Your task to perform on an android device: Open notification settings Image 0: 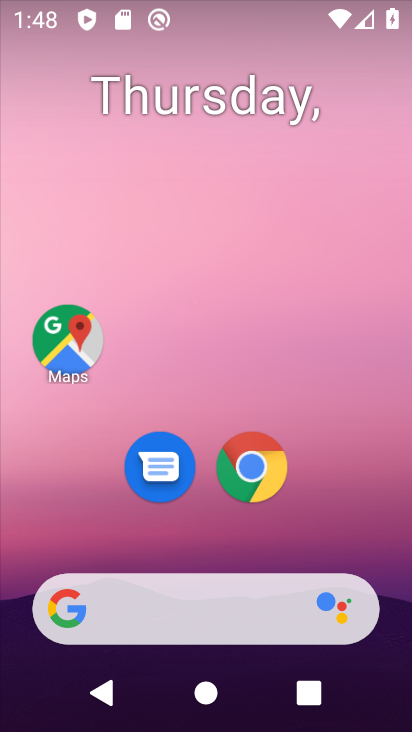
Step 0: click (390, 83)
Your task to perform on an android device: Open notification settings Image 1: 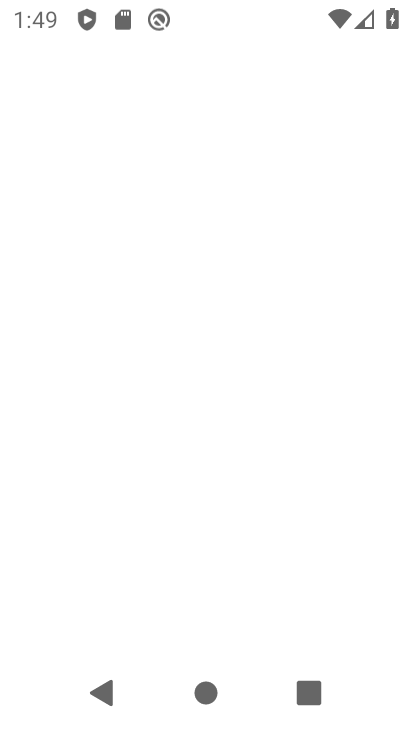
Step 1: press home button
Your task to perform on an android device: Open notification settings Image 2: 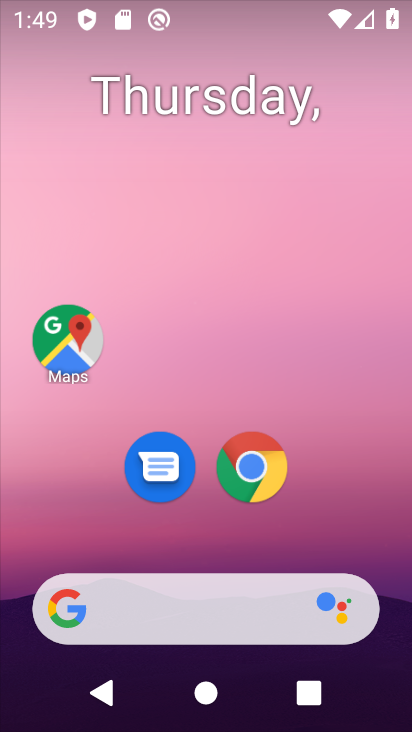
Step 2: drag from (341, 522) to (318, 152)
Your task to perform on an android device: Open notification settings Image 3: 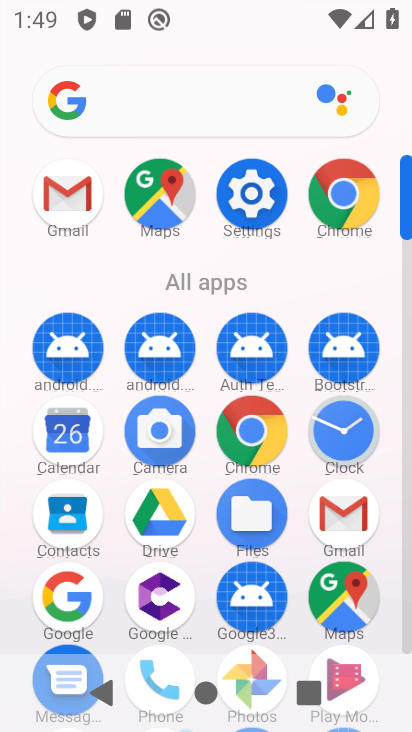
Step 3: click (237, 206)
Your task to perform on an android device: Open notification settings Image 4: 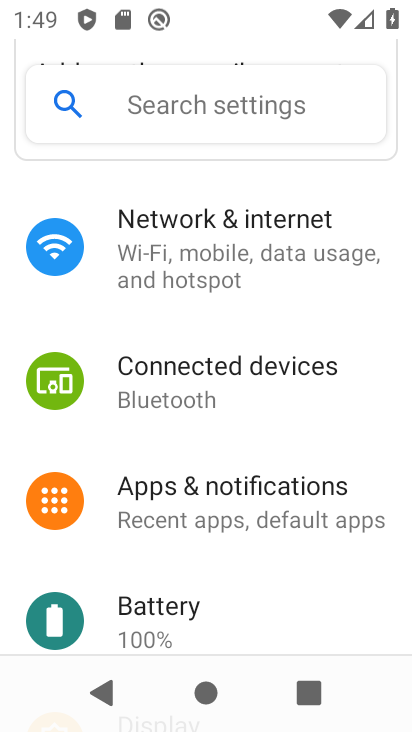
Step 4: click (246, 531)
Your task to perform on an android device: Open notification settings Image 5: 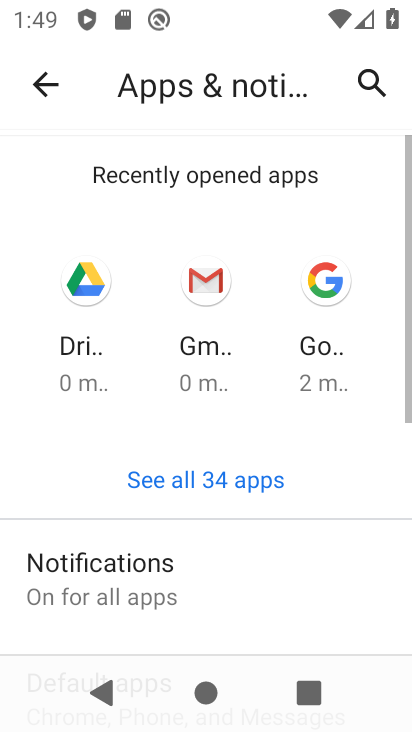
Step 5: drag from (251, 513) to (245, 258)
Your task to perform on an android device: Open notification settings Image 6: 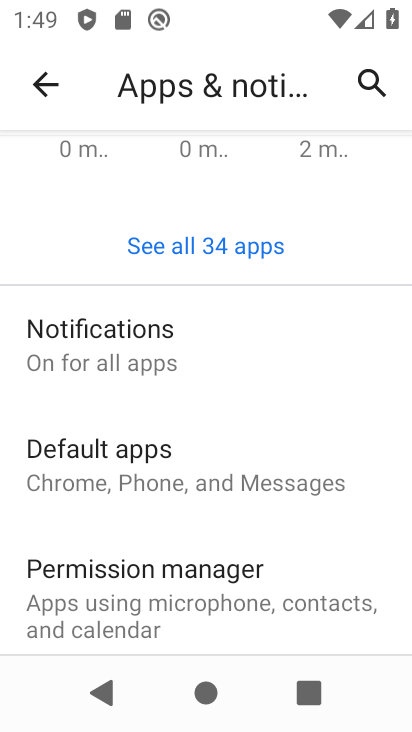
Step 6: click (167, 391)
Your task to perform on an android device: Open notification settings Image 7: 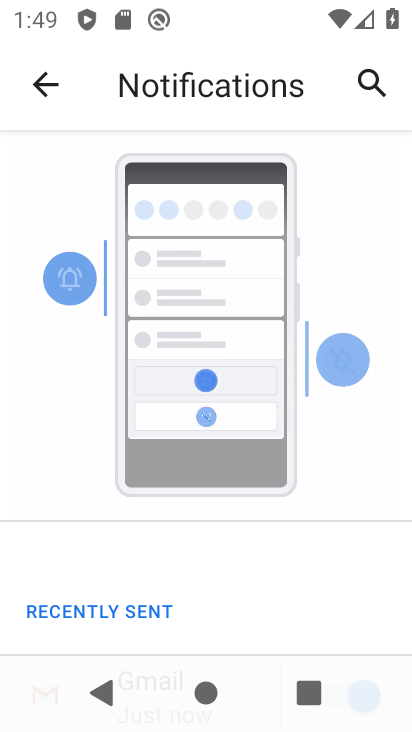
Step 7: task complete